Your task to perform on an android device: Open Chrome and go to the settings page Image 0: 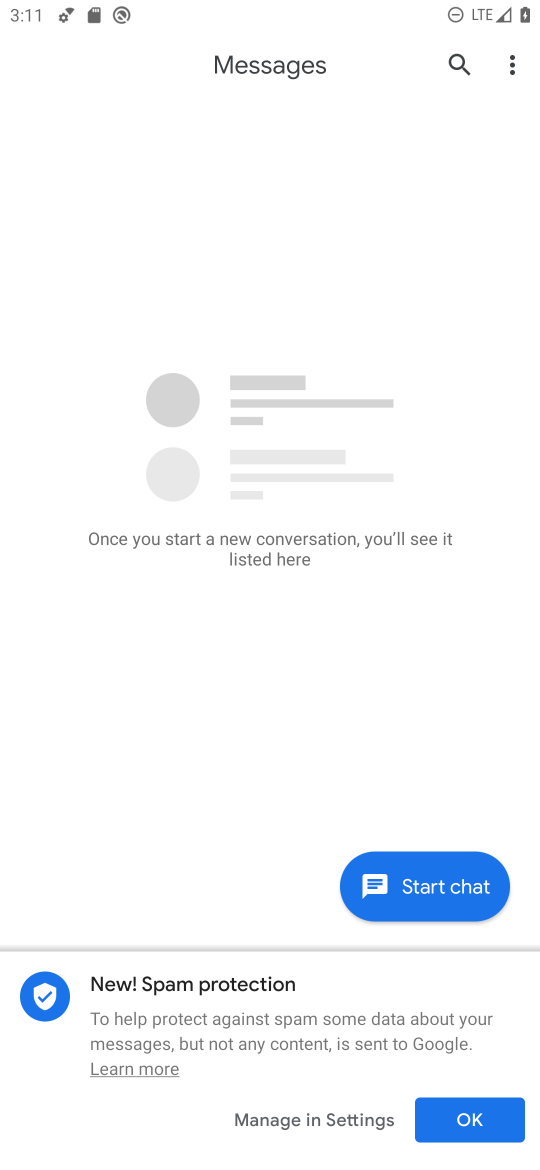
Step 0: press home button
Your task to perform on an android device: Open Chrome and go to the settings page Image 1: 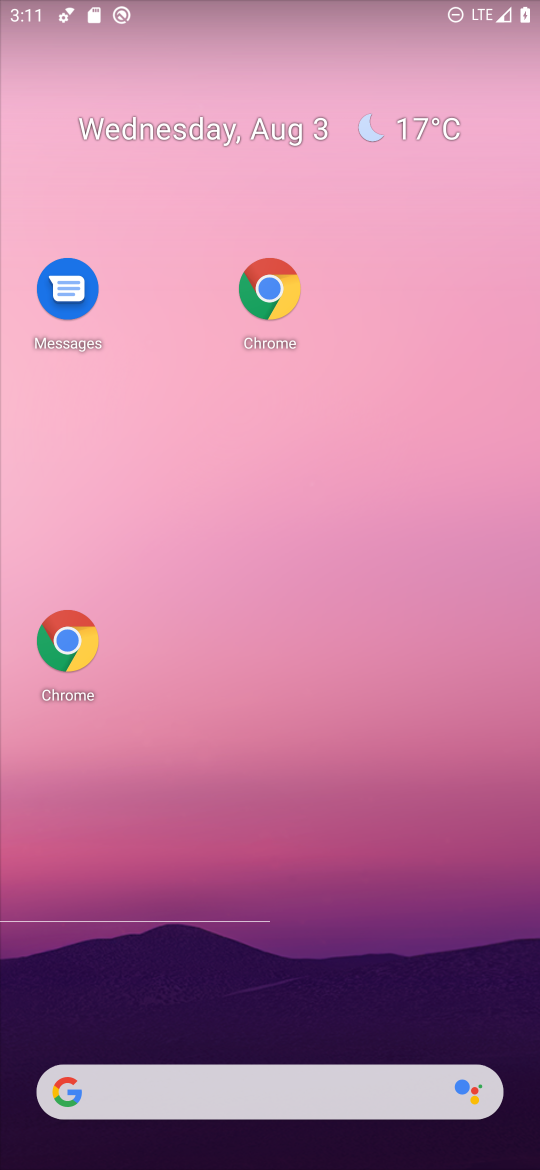
Step 1: click (72, 649)
Your task to perform on an android device: Open Chrome and go to the settings page Image 2: 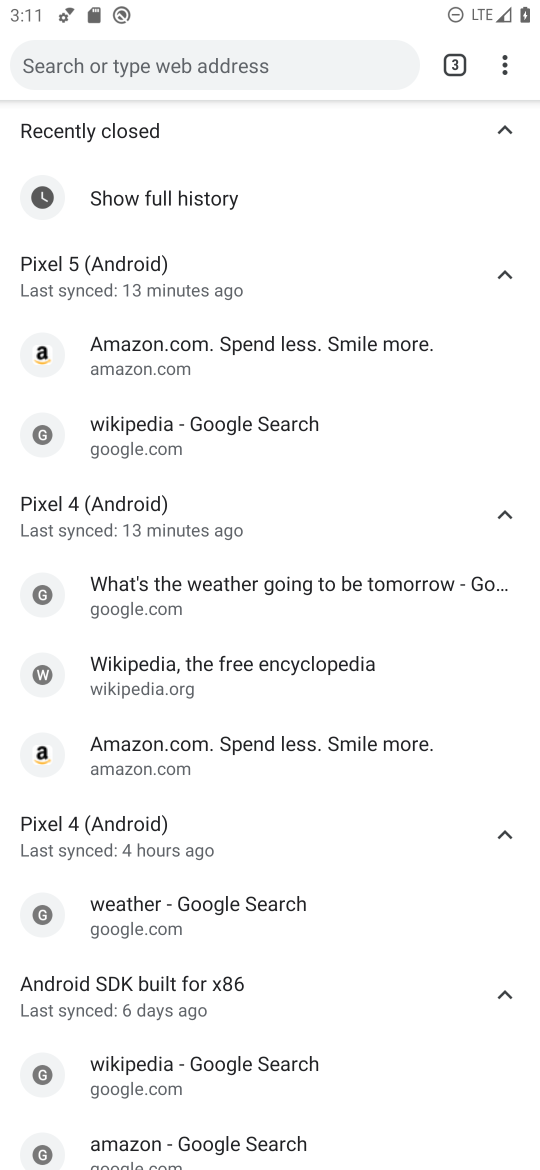
Step 2: task complete